Your task to perform on an android device: uninstall "Google Sheets" Image 0: 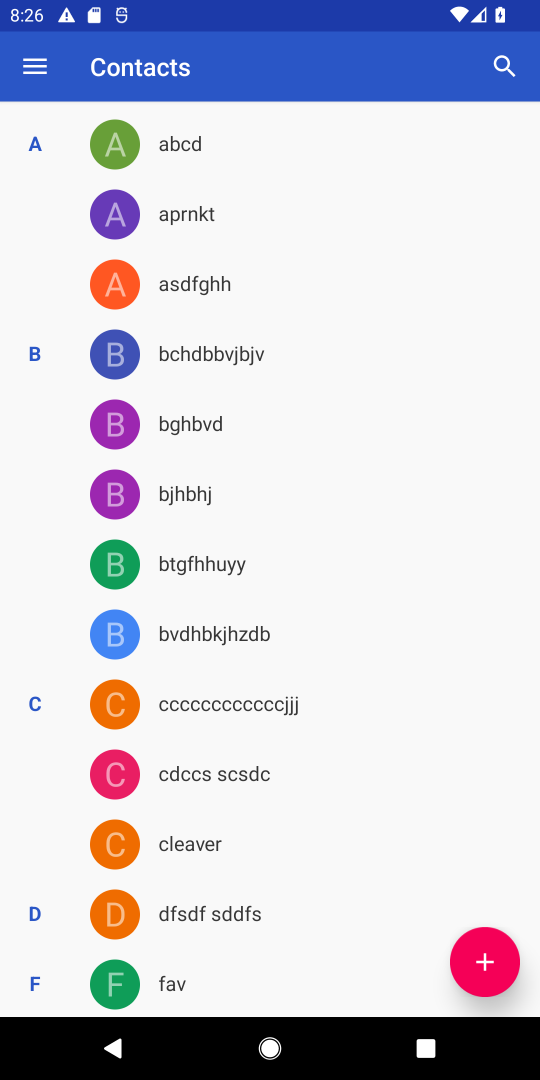
Step 0: press home button
Your task to perform on an android device: uninstall "Google Sheets" Image 1: 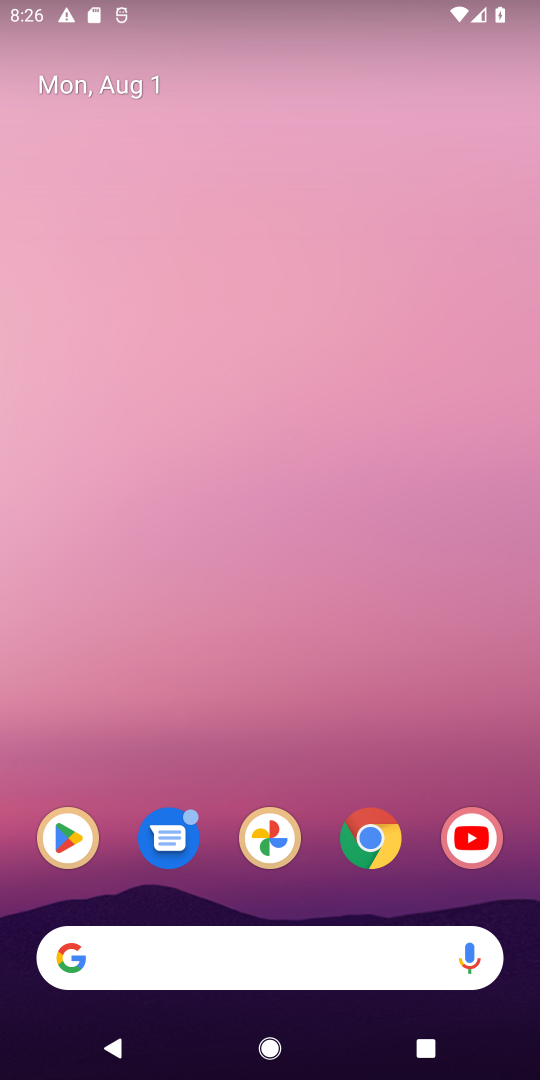
Step 1: drag from (250, 947) to (483, 122)
Your task to perform on an android device: uninstall "Google Sheets" Image 2: 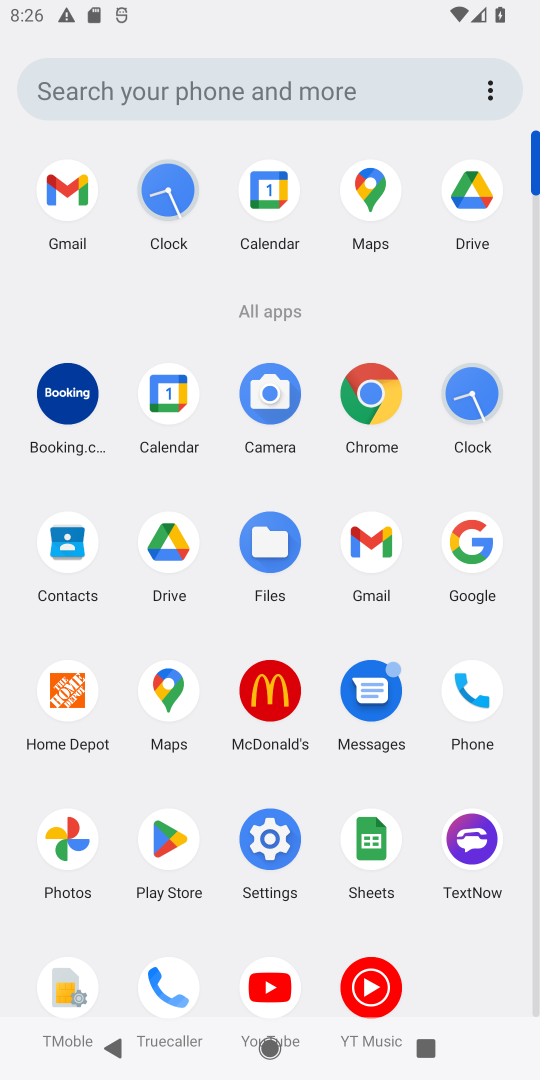
Step 2: click (173, 839)
Your task to perform on an android device: uninstall "Google Sheets" Image 3: 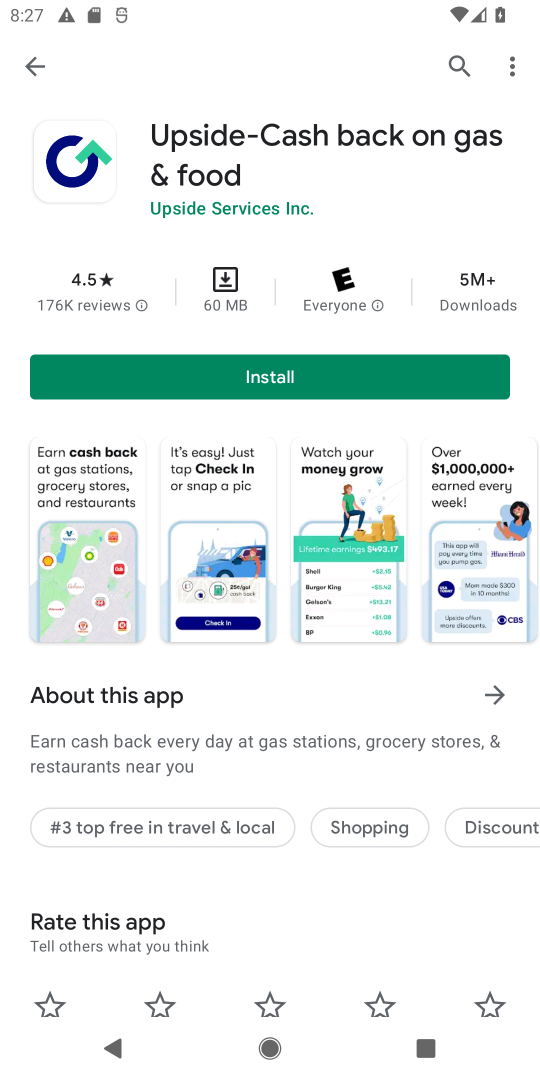
Step 3: click (446, 64)
Your task to perform on an android device: uninstall "Google Sheets" Image 4: 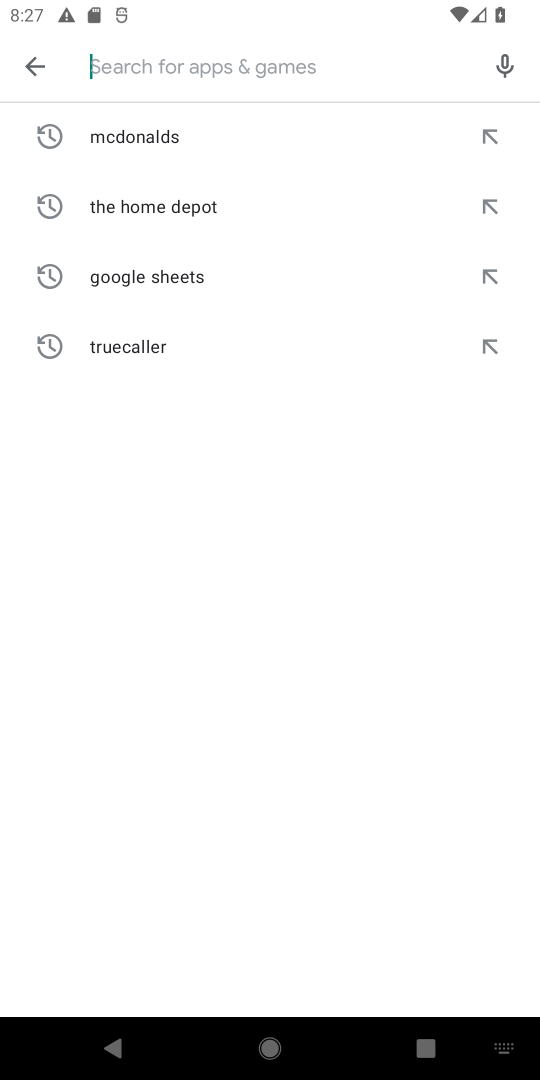
Step 4: type "google sheets"
Your task to perform on an android device: uninstall "Google Sheets" Image 5: 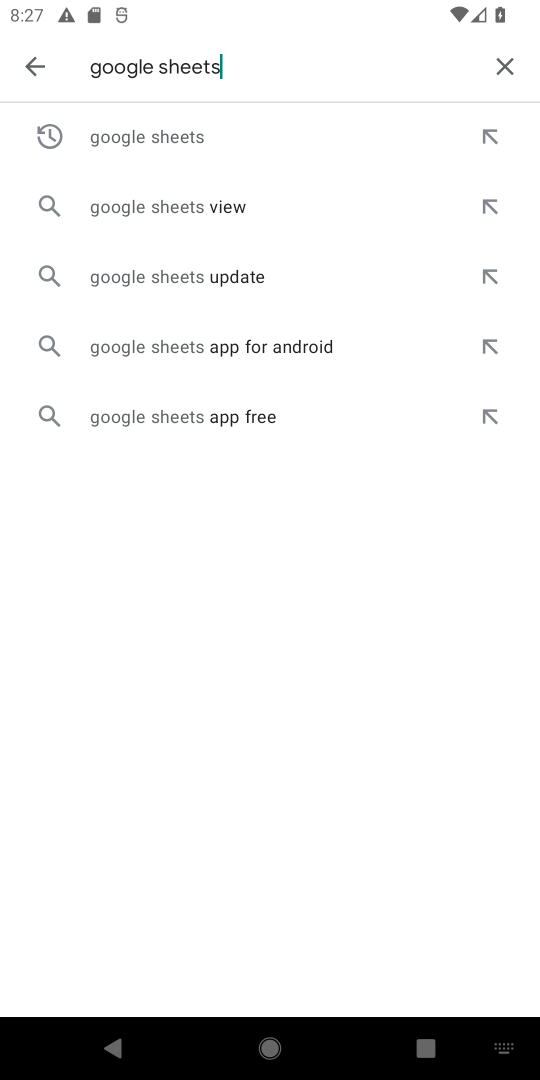
Step 5: click (199, 139)
Your task to perform on an android device: uninstall "Google Sheets" Image 6: 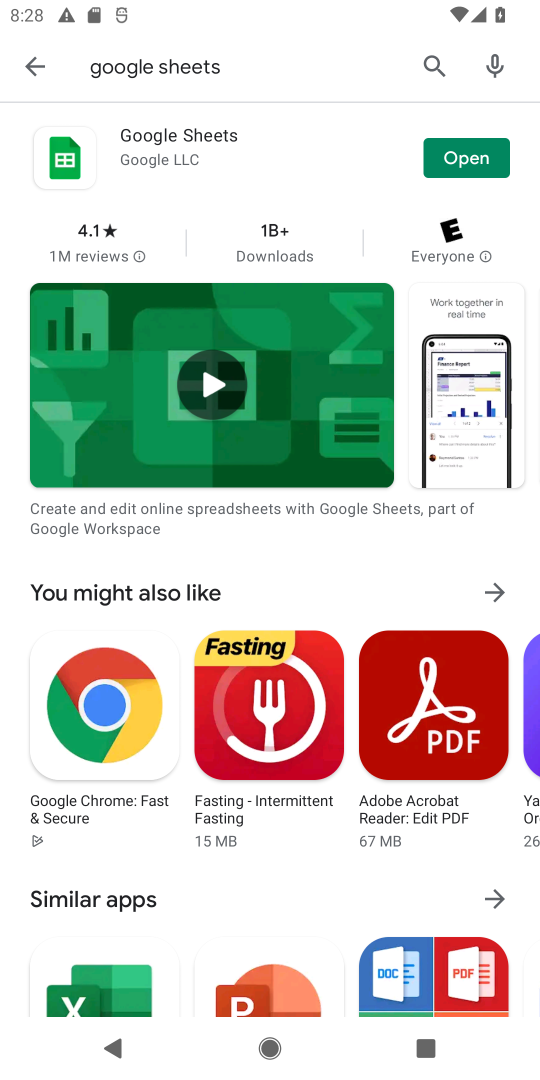
Step 6: task complete